Your task to perform on an android device: Open the Play Movies app and select the watchlist tab. Image 0: 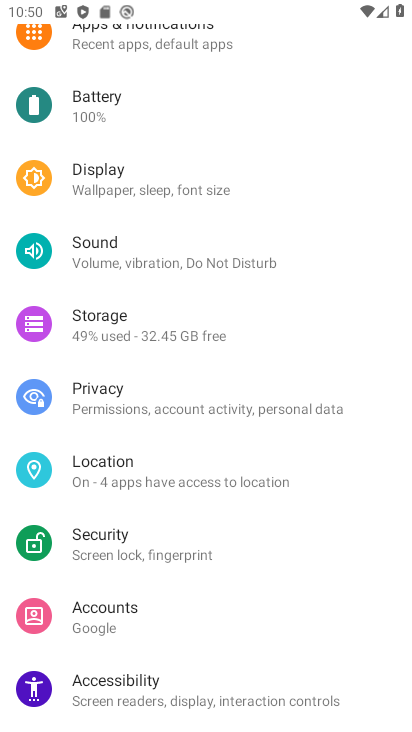
Step 0: press home button
Your task to perform on an android device: Open the Play Movies app and select the watchlist tab. Image 1: 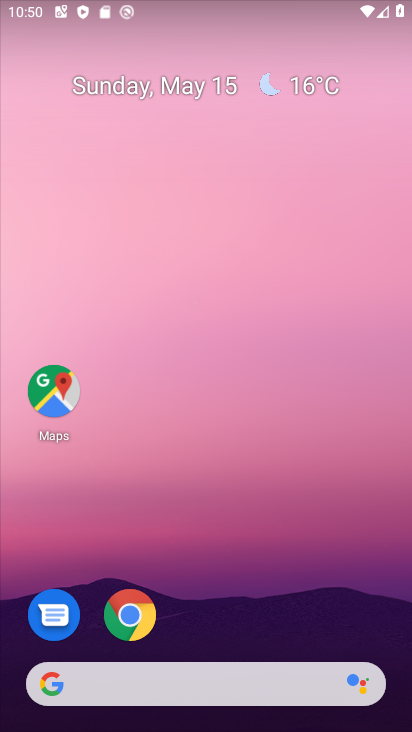
Step 1: drag from (301, 646) to (294, 0)
Your task to perform on an android device: Open the Play Movies app and select the watchlist tab. Image 2: 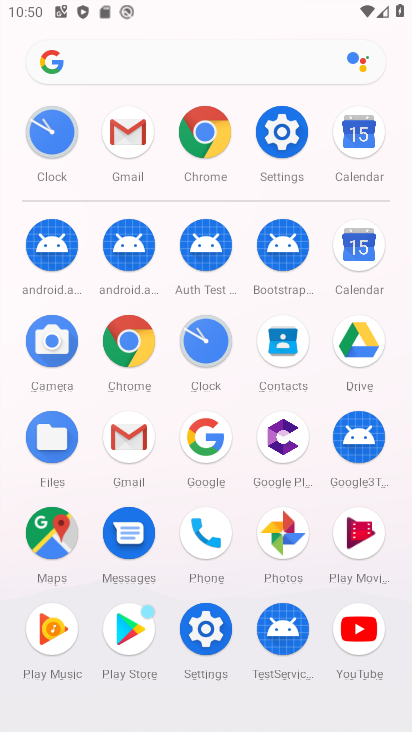
Step 2: drag from (305, 561) to (334, 284)
Your task to perform on an android device: Open the Play Movies app and select the watchlist tab. Image 3: 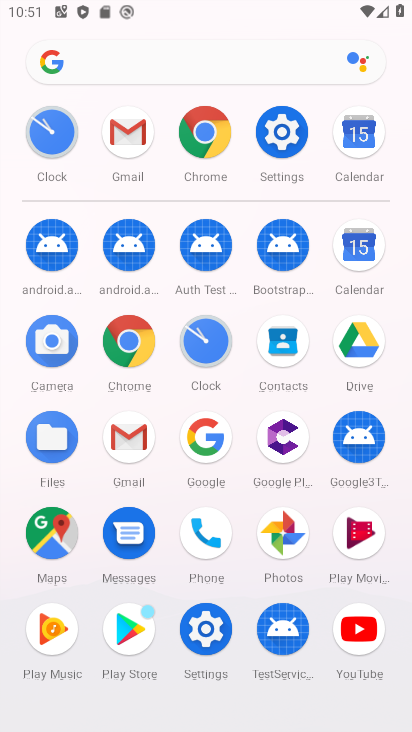
Step 3: click (335, 530)
Your task to perform on an android device: Open the Play Movies app and select the watchlist tab. Image 4: 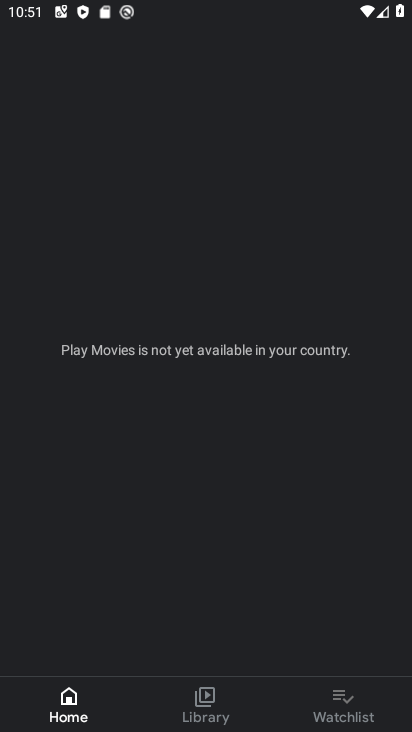
Step 4: drag from (328, 701) to (254, 701)
Your task to perform on an android device: Open the Play Movies app and select the watchlist tab. Image 5: 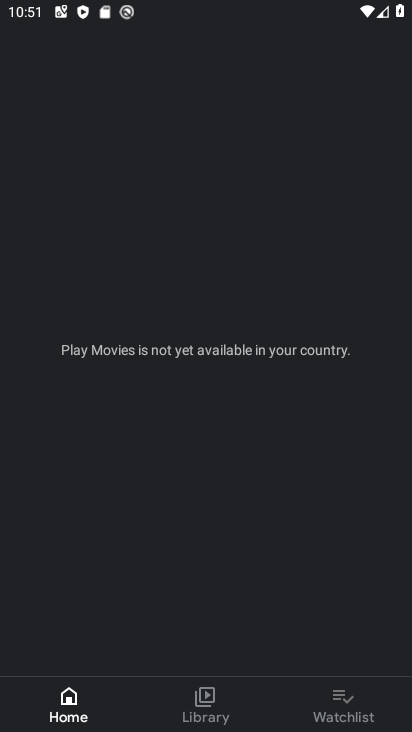
Step 5: click (334, 710)
Your task to perform on an android device: Open the Play Movies app and select the watchlist tab. Image 6: 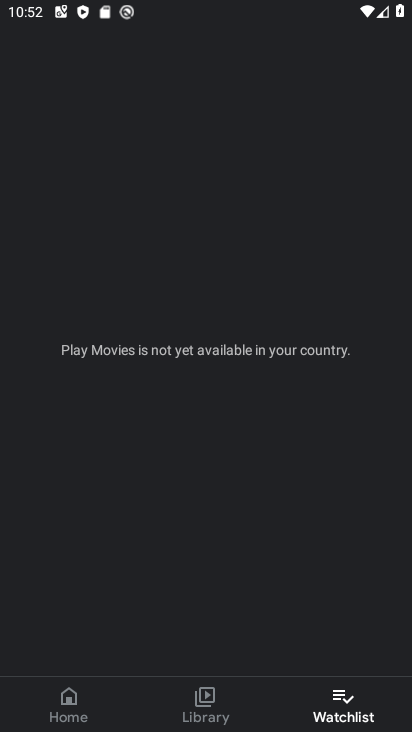
Step 6: task complete